Your task to perform on an android device: Go to calendar. Show me events next week Image 0: 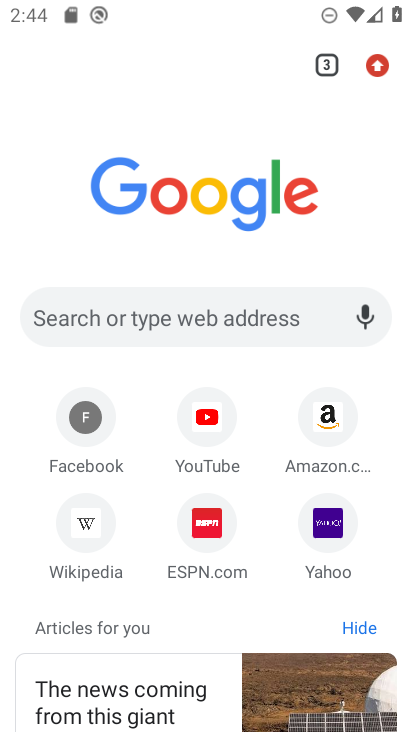
Step 0: press home button
Your task to perform on an android device: Go to calendar. Show me events next week Image 1: 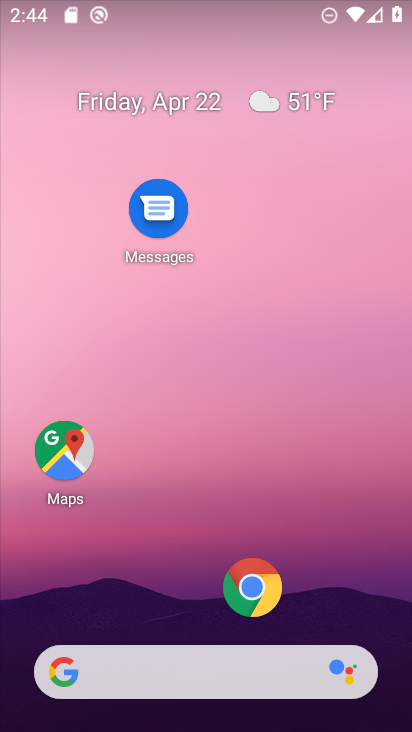
Step 1: drag from (187, 621) to (242, 212)
Your task to perform on an android device: Go to calendar. Show me events next week Image 2: 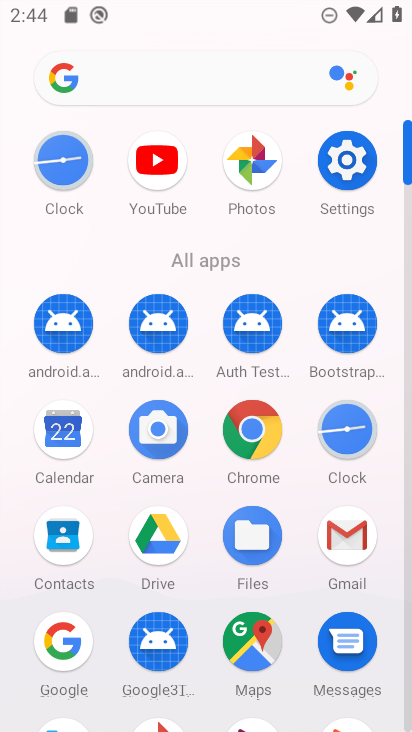
Step 2: click (74, 438)
Your task to perform on an android device: Go to calendar. Show me events next week Image 3: 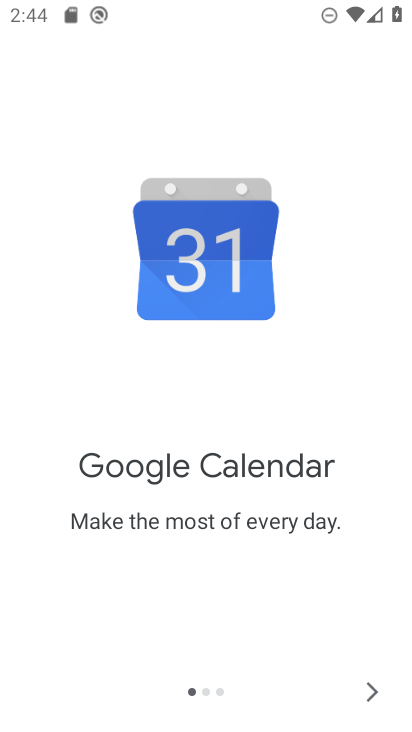
Step 3: click (376, 684)
Your task to perform on an android device: Go to calendar. Show me events next week Image 4: 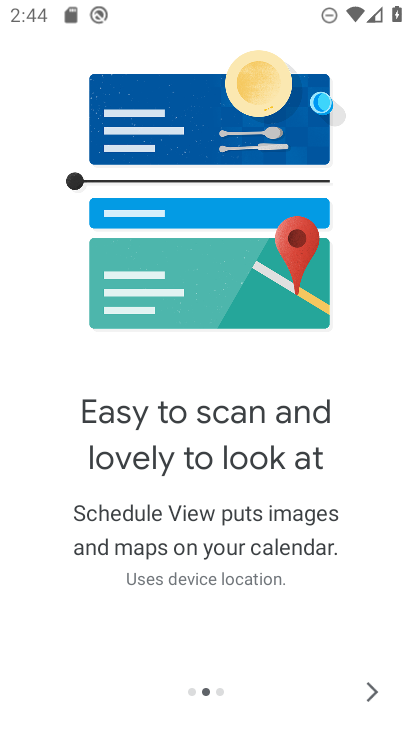
Step 4: click (376, 684)
Your task to perform on an android device: Go to calendar. Show me events next week Image 5: 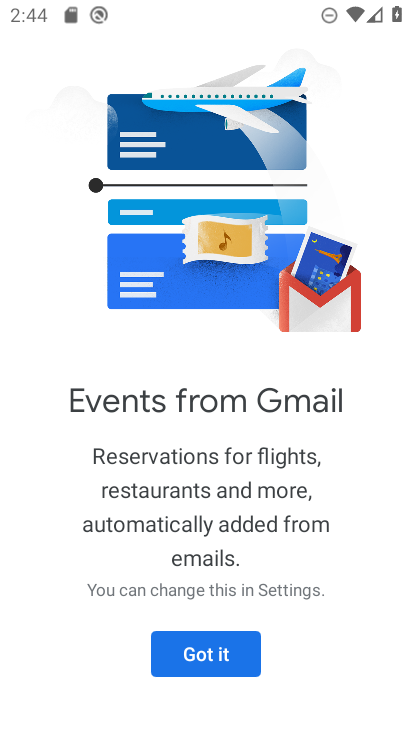
Step 5: click (234, 665)
Your task to perform on an android device: Go to calendar. Show me events next week Image 6: 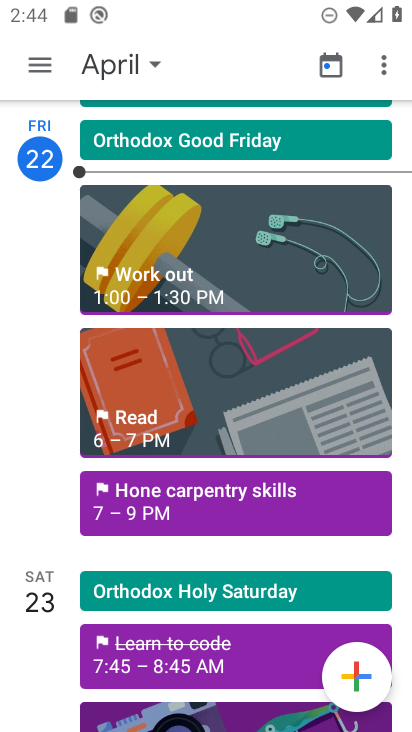
Step 6: click (104, 65)
Your task to perform on an android device: Go to calendar. Show me events next week Image 7: 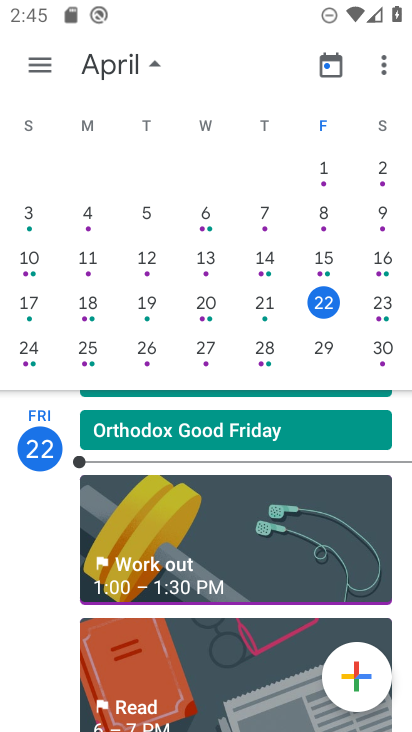
Step 7: click (380, 351)
Your task to perform on an android device: Go to calendar. Show me events next week Image 8: 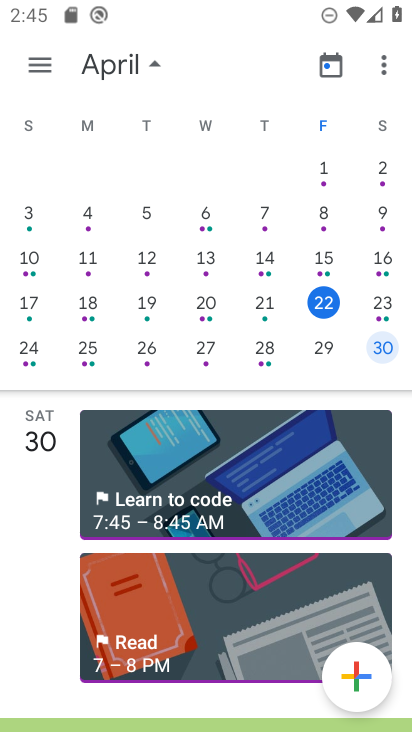
Step 8: click (256, 352)
Your task to perform on an android device: Go to calendar. Show me events next week Image 9: 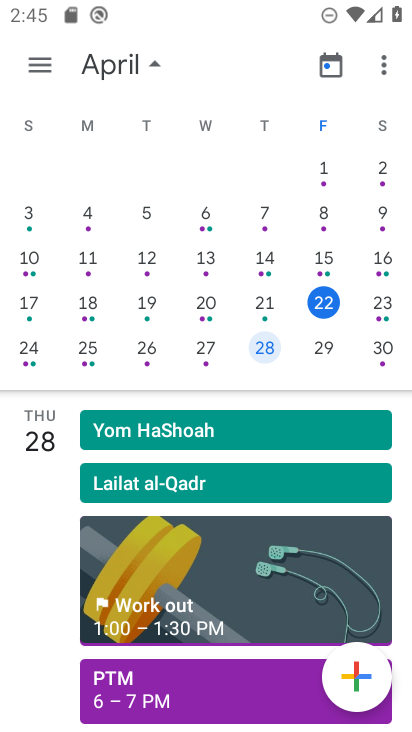
Step 9: click (259, 352)
Your task to perform on an android device: Go to calendar. Show me events next week Image 10: 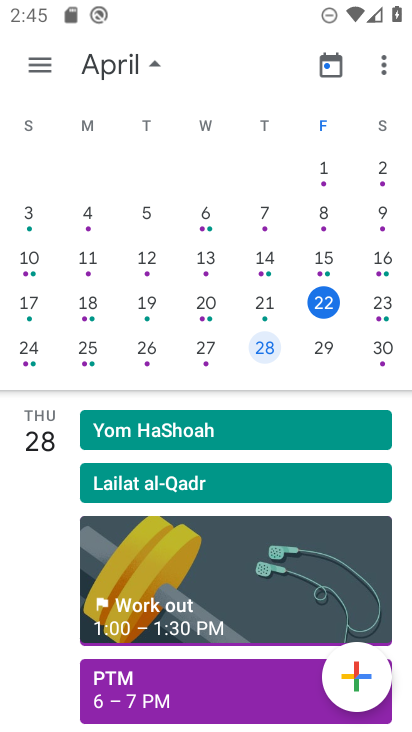
Step 10: task complete